Your task to perform on an android device: Search for a 1/2 in. x 1/2 in. x 24 in. 600 grit sander on Lowes.com Image 0: 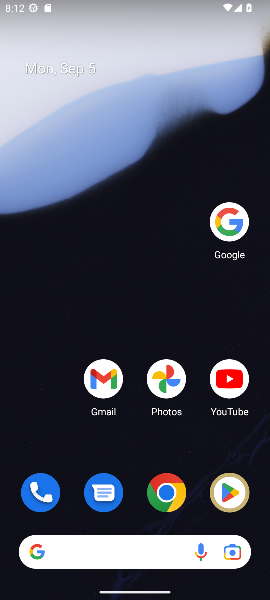
Step 0: click (237, 216)
Your task to perform on an android device: Search for a 1/2 in. x 1/2 in. x 24 in. 600 grit sander on Lowes.com Image 1: 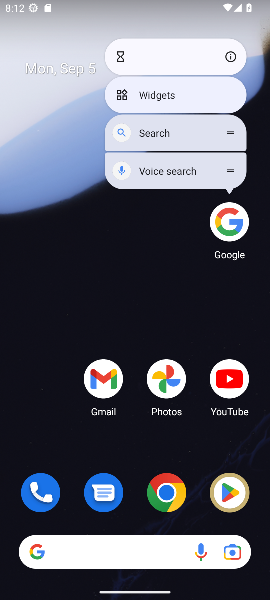
Step 1: click (226, 205)
Your task to perform on an android device: Search for a 1/2 in. x 1/2 in. x 24 in. 600 grit sander on Lowes.com Image 2: 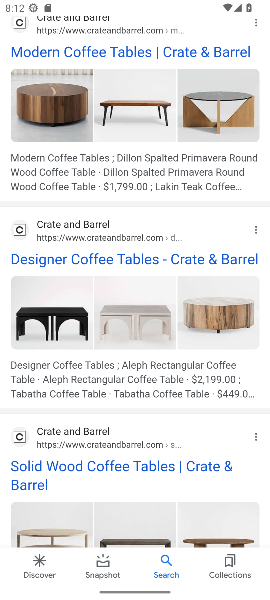
Step 2: drag from (133, 68) to (126, 505)
Your task to perform on an android device: Search for a 1/2 in. x 1/2 in. x 24 in. 600 grit sander on Lowes.com Image 3: 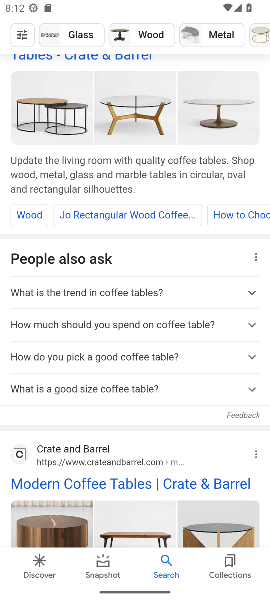
Step 3: drag from (114, 124) to (105, 597)
Your task to perform on an android device: Search for a 1/2 in. x 1/2 in. x 24 in. 600 grit sander on Lowes.com Image 4: 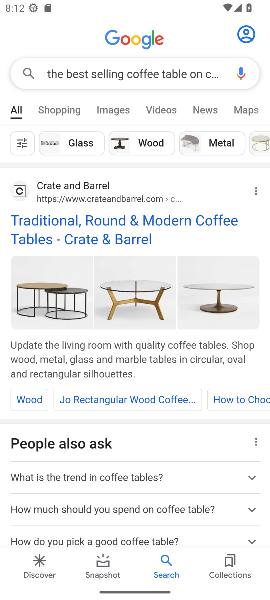
Step 4: click (145, 70)
Your task to perform on an android device: Search for a 1/2 in. x 1/2 in. x 24 in. 600 grit sander on Lowes.com Image 5: 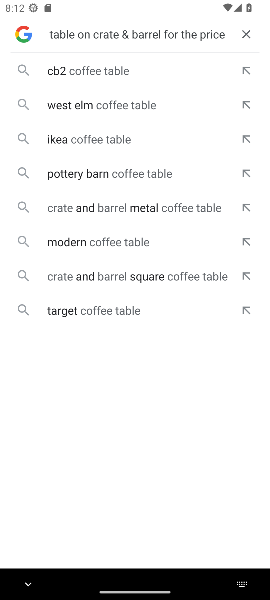
Step 5: click (243, 25)
Your task to perform on an android device: Search for a 1/2 in. x 1/2 in. x 24 in. 600 grit sander on Lowes.com Image 6: 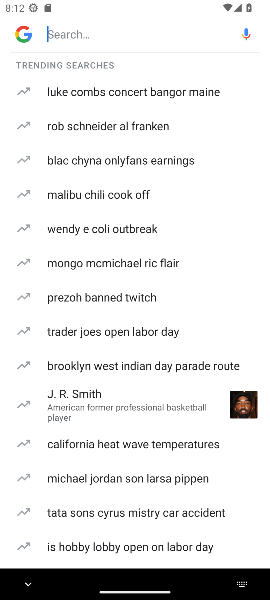
Step 6: click (82, 28)
Your task to perform on an android device: Search for a 1/2 in. x 1/2 in. x 24 in. 600 grit sander on Lowes.com Image 7: 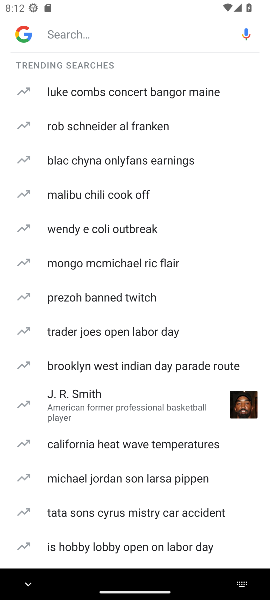
Step 7: type " 1/2 in. x 1/2 in. x 24 in. 600 grit sander on Lowes.com "
Your task to perform on an android device: Search for a 1/2 in. x 1/2 in. x 24 in. 600 grit sander on Lowes.com Image 8: 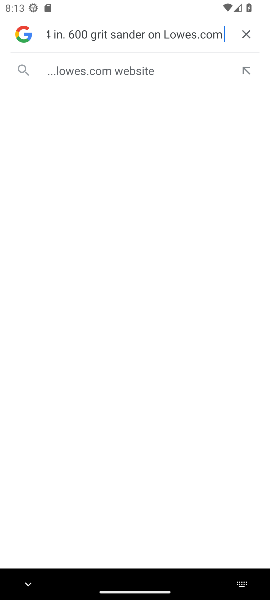
Step 8: click (151, 71)
Your task to perform on an android device: Search for a 1/2 in. x 1/2 in. x 24 in. 600 grit sander on Lowes.com Image 9: 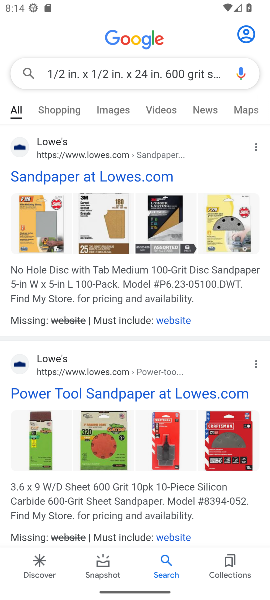
Step 9: click (75, 167)
Your task to perform on an android device: Search for a 1/2 in. x 1/2 in. x 24 in. 600 grit sander on Lowes.com Image 10: 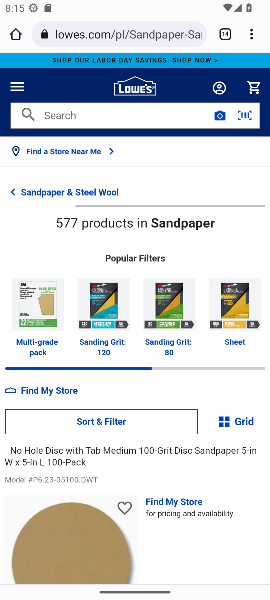
Step 10: task complete